Your task to perform on an android device: manage bookmarks in the chrome app Image 0: 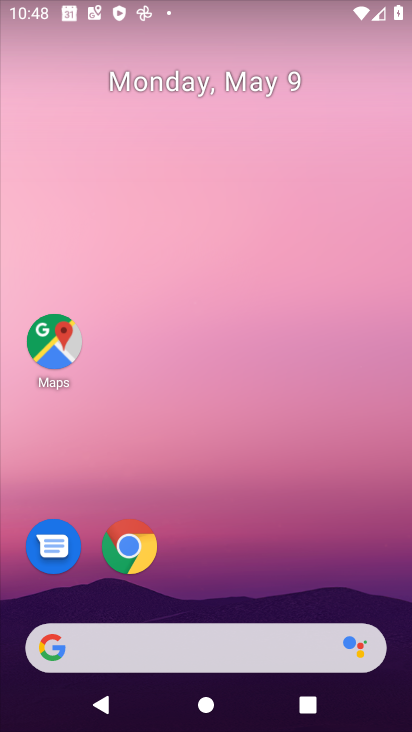
Step 0: click (119, 565)
Your task to perform on an android device: manage bookmarks in the chrome app Image 1: 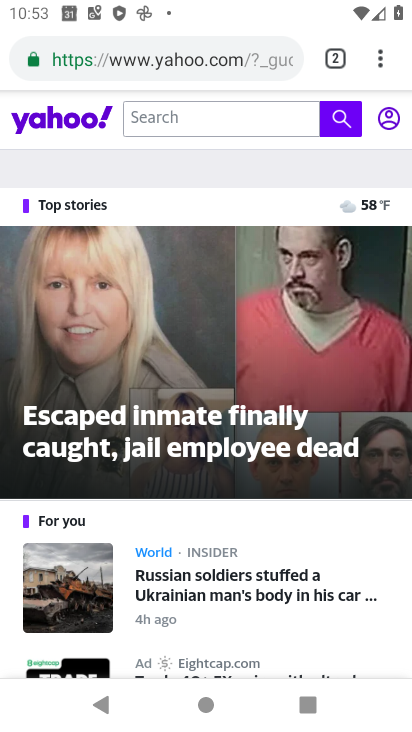
Step 1: click (389, 59)
Your task to perform on an android device: manage bookmarks in the chrome app Image 2: 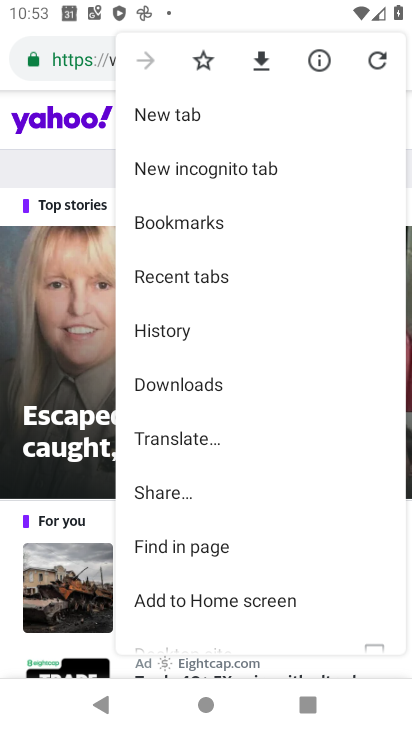
Step 2: click (207, 222)
Your task to perform on an android device: manage bookmarks in the chrome app Image 3: 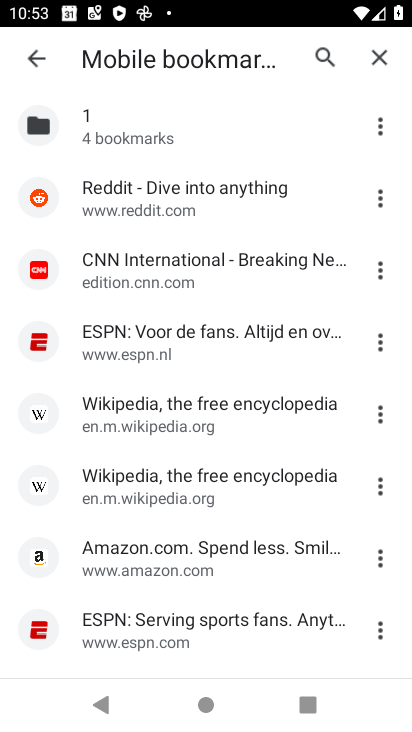
Step 3: click (383, 267)
Your task to perform on an android device: manage bookmarks in the chrome app Image 4: 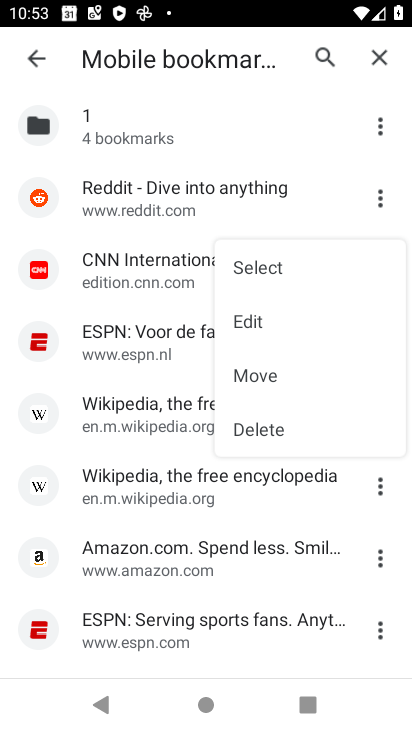
Step 4: click (272, 423)
Your task to perform on an android device: manage bookmarks in the chrome app Image 5: 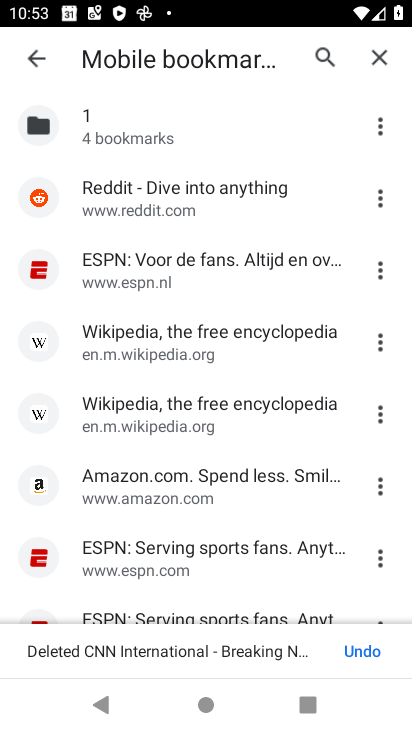
Step 5: task complete